Your task to perform on an android device: change the clock display to analog Image 0: 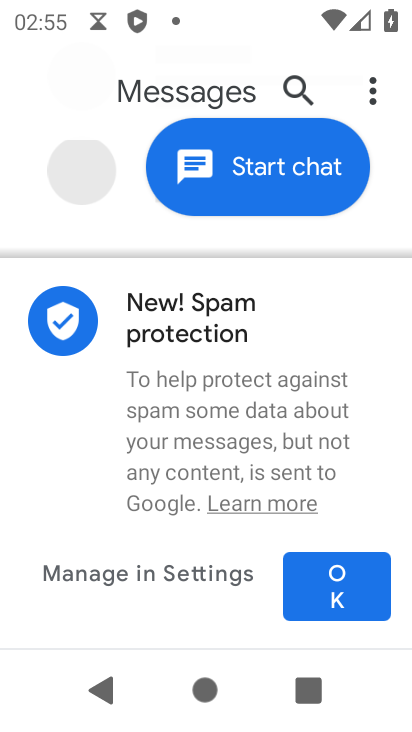
Step 0: press back button
Your task to perform on an android device: change the clock display to analog Image 1: 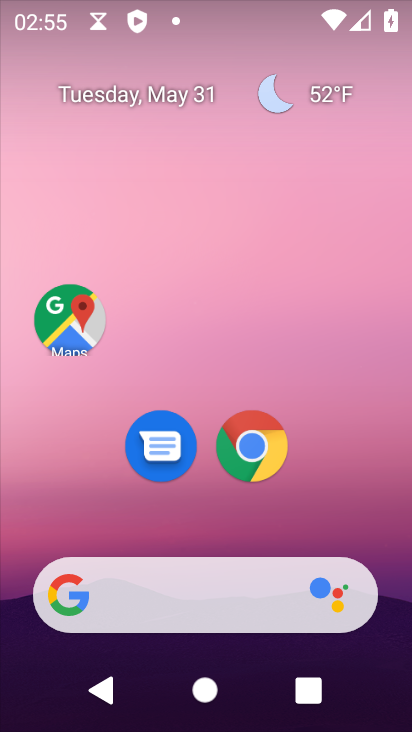
Step 1: drag from (328, 507) to (284, 124)
Your task to perform on an android device: change the clock display to analog Image 2: 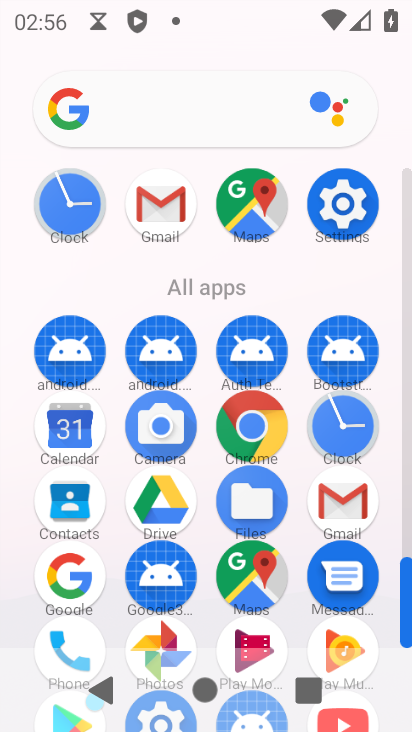
Step 2: click (69, 203)
Your task to perform on an android device: change the clock display to analog Image 3: 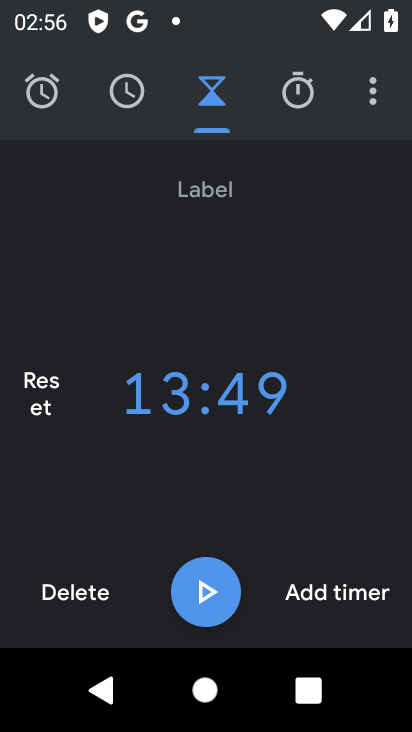
Step 3: click (371, 94)
Your task to perform on an android device: change the clock display to analog Image 4: 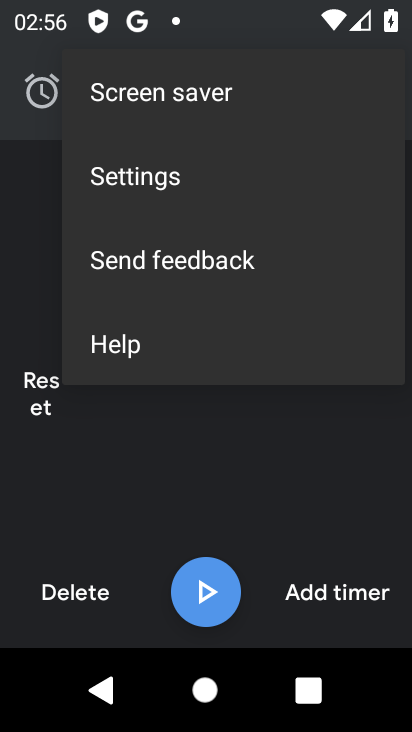
Step 4: click (151, 181)
Your task to perform on an android device: change the clock display to analog Image 5: 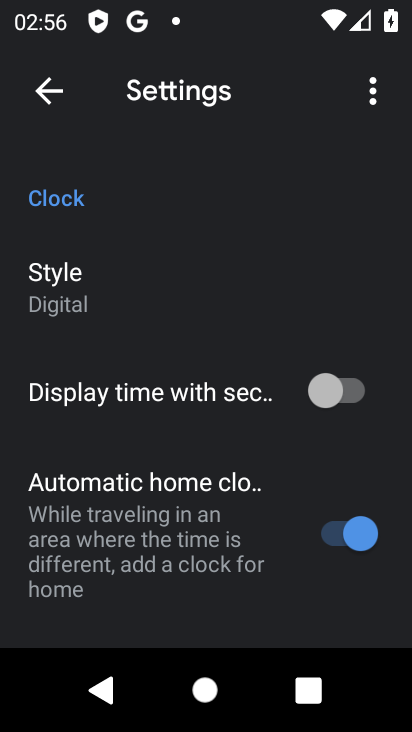
Step 5: click (81, 293)
Your task to perform on an android device: change the clock display to analog Image 6: 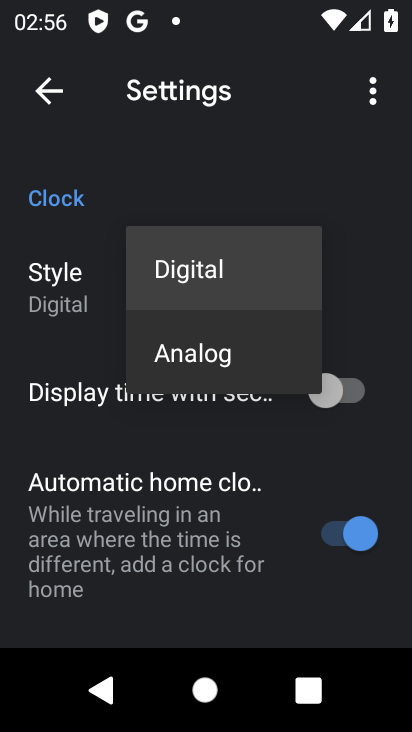
Step 6: click (213, 354)
Your task to perform on an android device: change the clock display to analog Image 7: 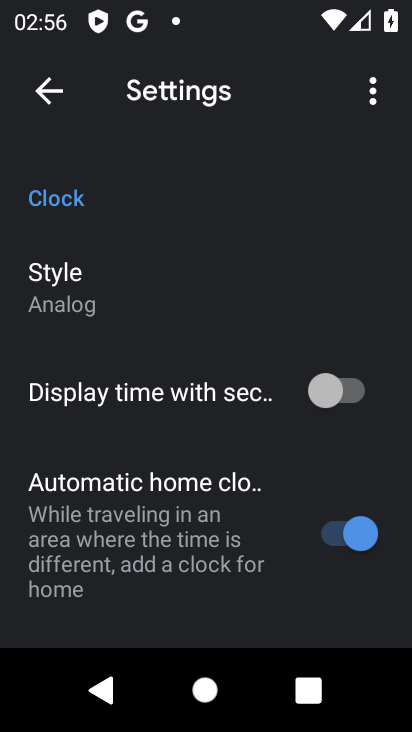
Step 7: task complete